Your task to perform on an android device: toggle data saver in the chrome app Image 0: 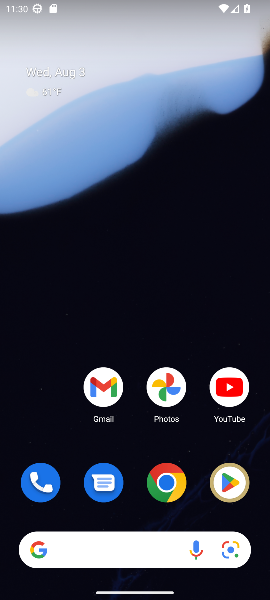
Step 0: click (169, 485)
Your task to perform on an android device: toggle data saver in the chrome app Image 1: 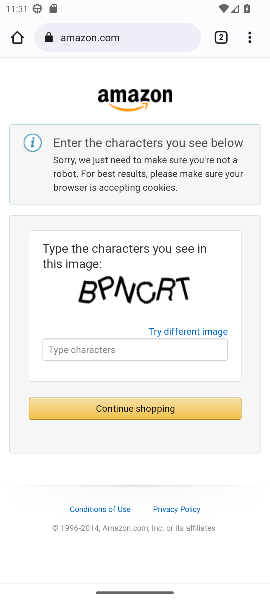
Step 1: click (250, 42)
Your task to perform on an android device: toggle data saver in the chrome app Image 2: 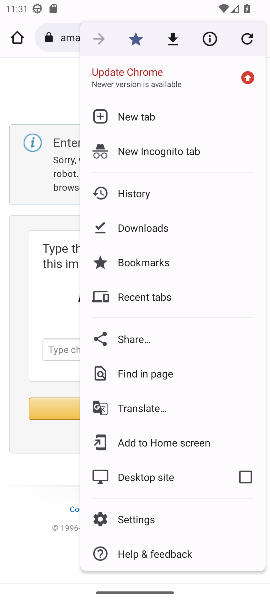
Step 2: click (132, 519)
Your task to perform on an android device: toggle data saver in the chrome app Image 3: 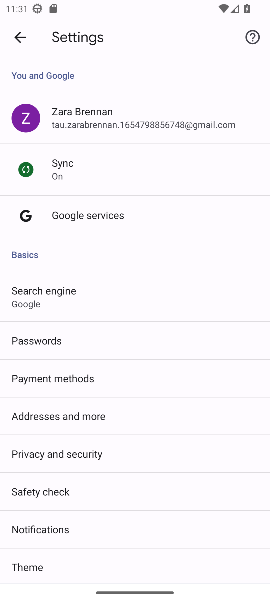
Step 3: drag from (89, 530) to (84, 163)
Your task to perform on an android device: toggle data saver in the chrome app Image 4: 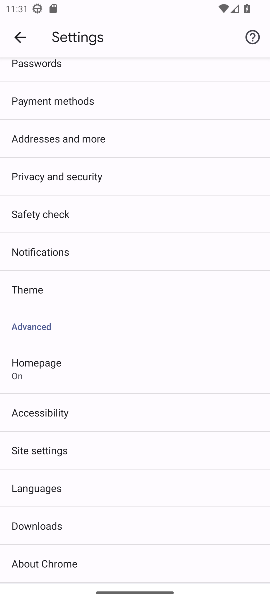
Step 4: click (138, 457)
Your task to perform on an android device: toggle data saver in the chrome app Image 5: 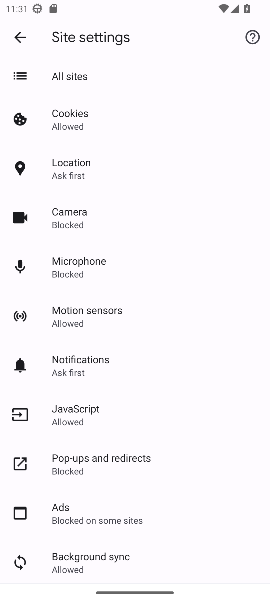
Step 5: task complete